Your task to perform on an android device: turn on sleep mode Image 0: 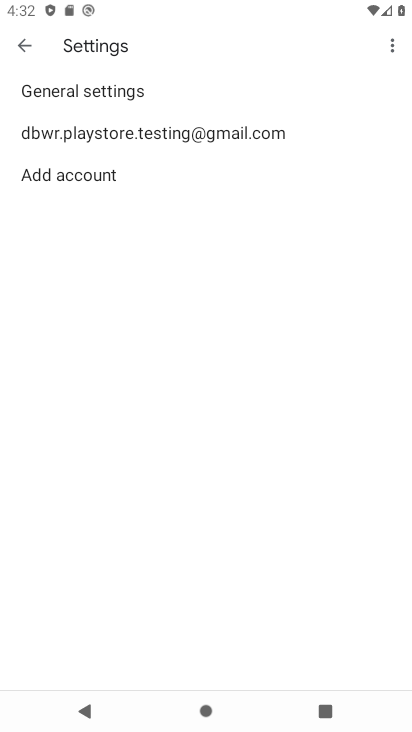
Step 0: press home button
Your task to perform on an android device: turn on sleep mode Image 1: 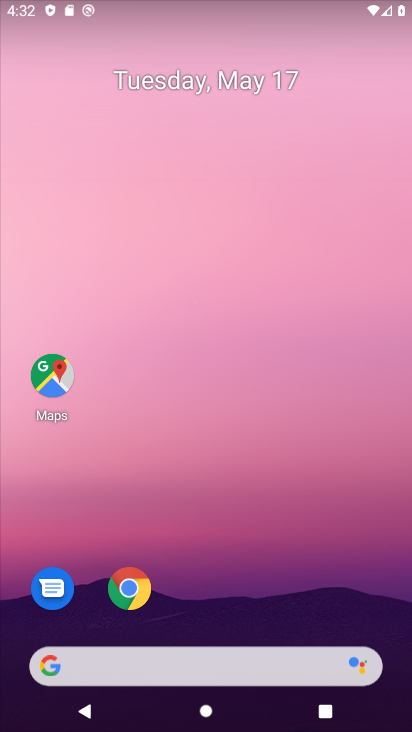
Step 1: drag from (252, 503) to (231, 125)
Your task to perform on an android device: turn on sleep mode Image 2: 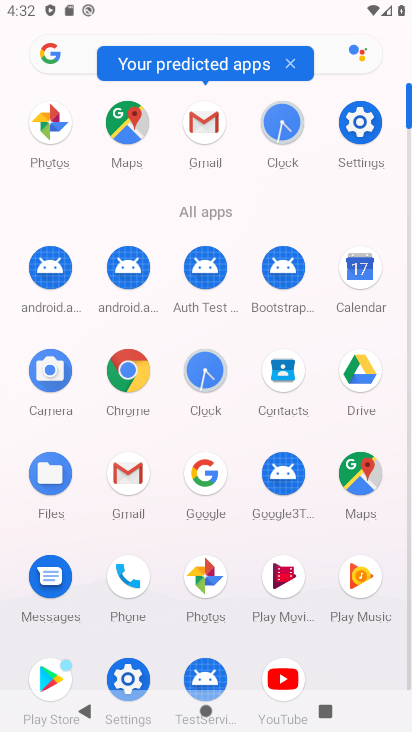
Step 2: click (359, 130)
Your task to perform on an android device: turn on sleep mode Image 3: 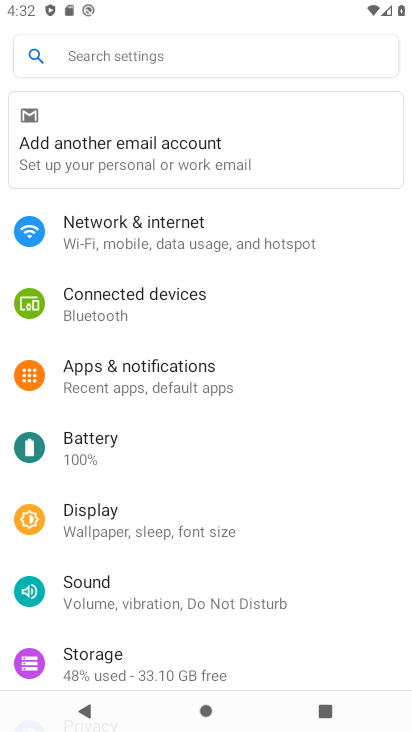
Step 3: click (184, 532)
Your task to perform on an android device: turn on sleep mode Image 4: 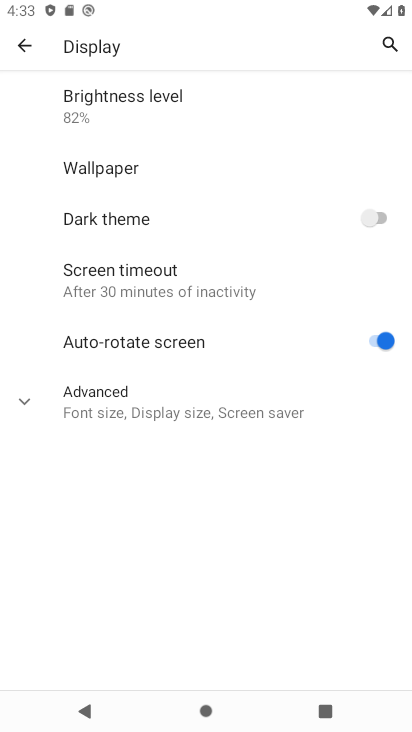
Step 4: click (74, 404)
Your task to perform on an android device: turn on sleep mode Image 5: 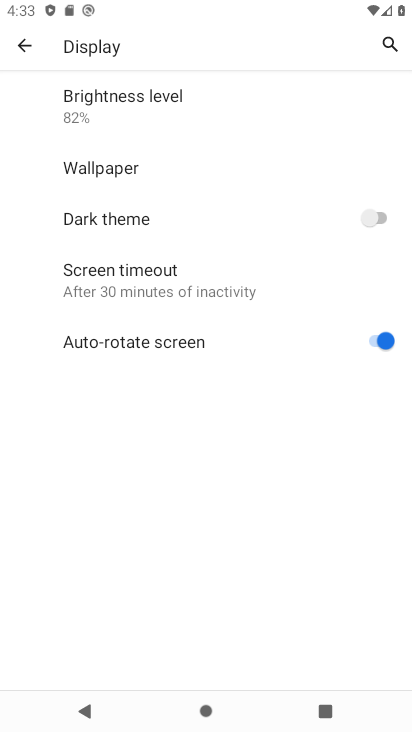
Step 5: click (24, 402)
Your task to perform on an android device: turn on sleep mode Image 6: 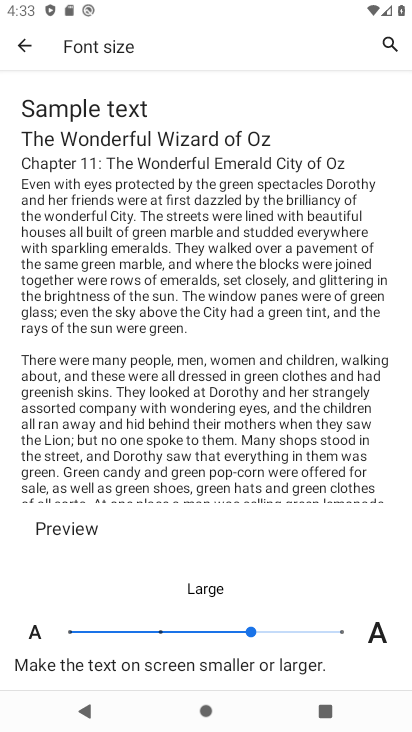
Step 6: task complete